Your task to perform on an android device: Search for Mexican restaurants on Maps Image 0: 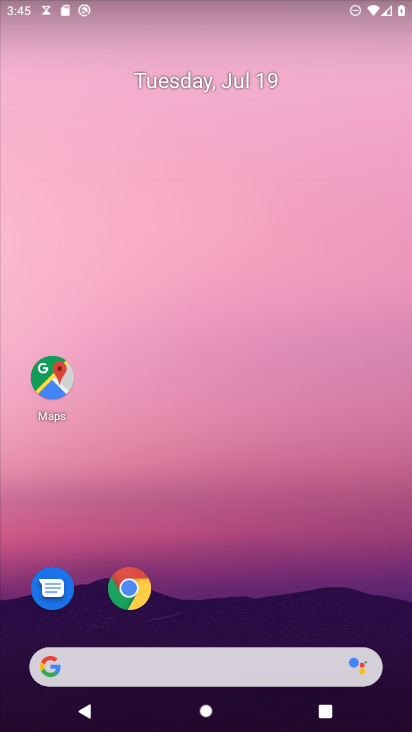
Step 0: click (55, 386)
Your task to perform on an android device: Search for Mexican restaurants on Maps Image 1: 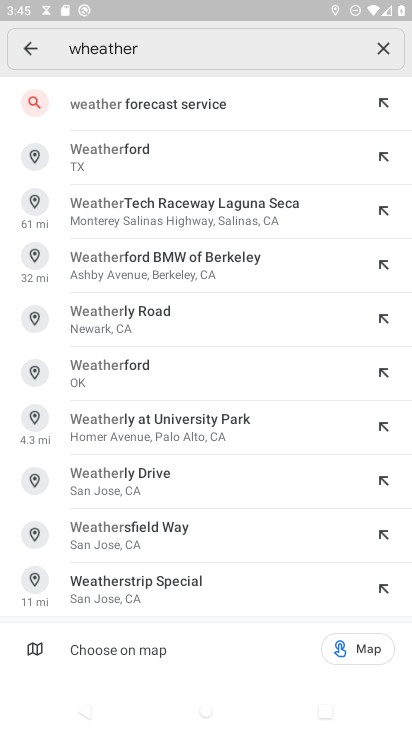
Step 1: click (381, 42)
Your task to perform on an android device: Search for Mexican restaurants on Maps Image 2: 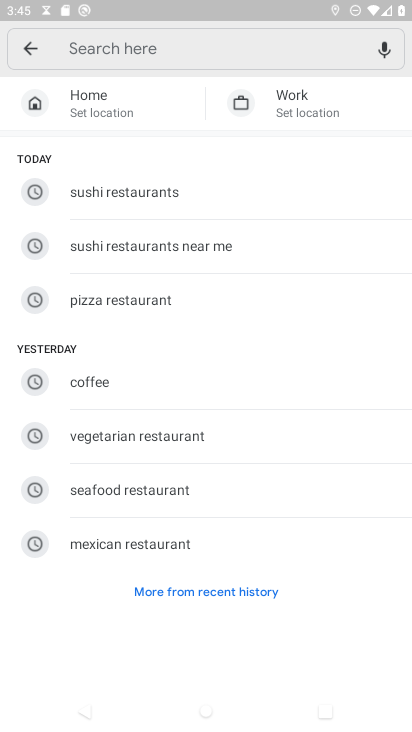
Step 2: click (133, 543)
Your task to perform on an android device: Search for Mexican restaurants on Maps Image 3: 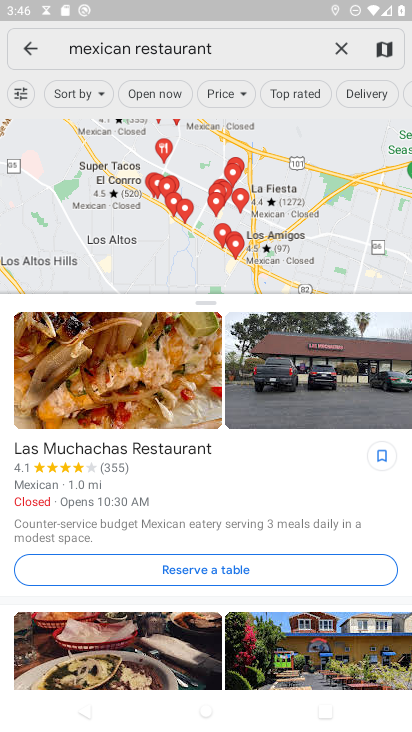
Step 3: task complete